Your task to perform on an android device: View the shopping cart on newegg.com. Image 0: 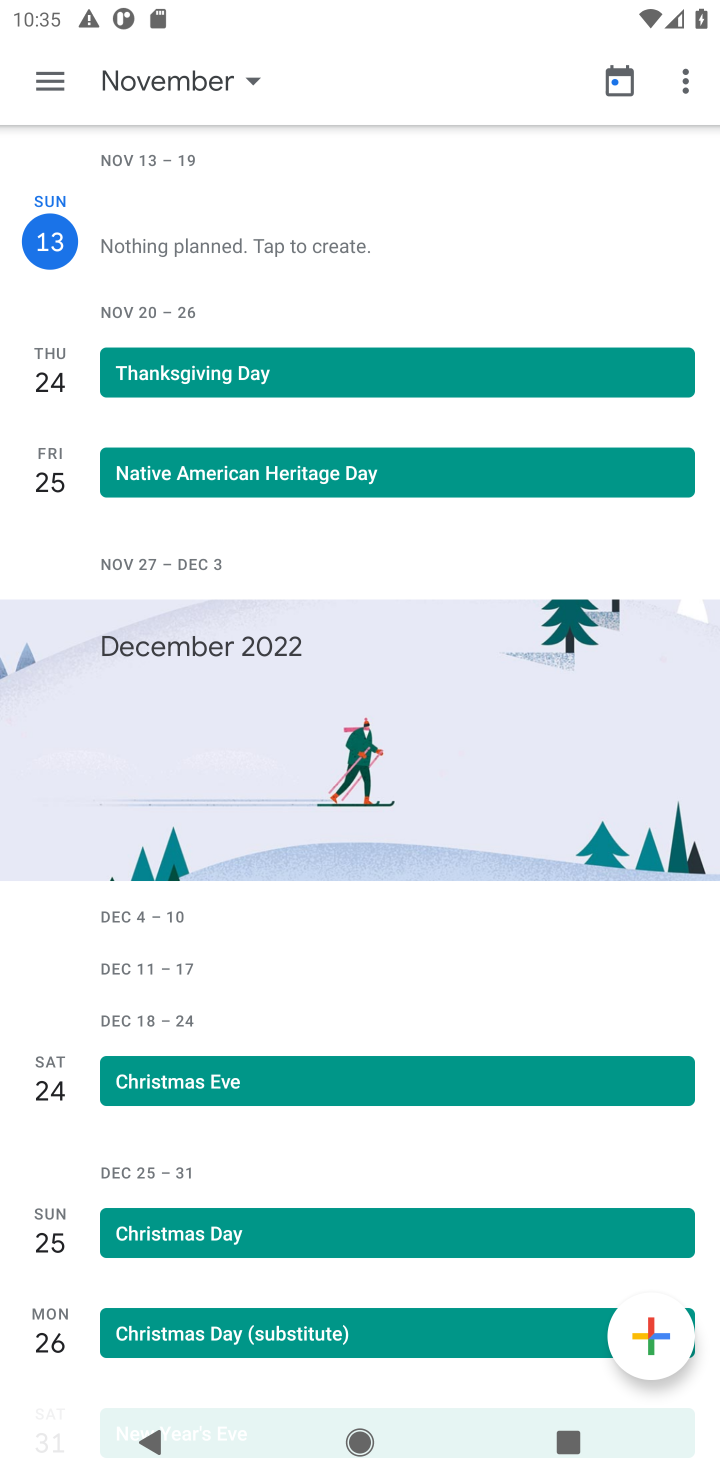
Step 0: press home button
Your task to perform on an android device: View the shopping cart on newegg.com. Image 1: 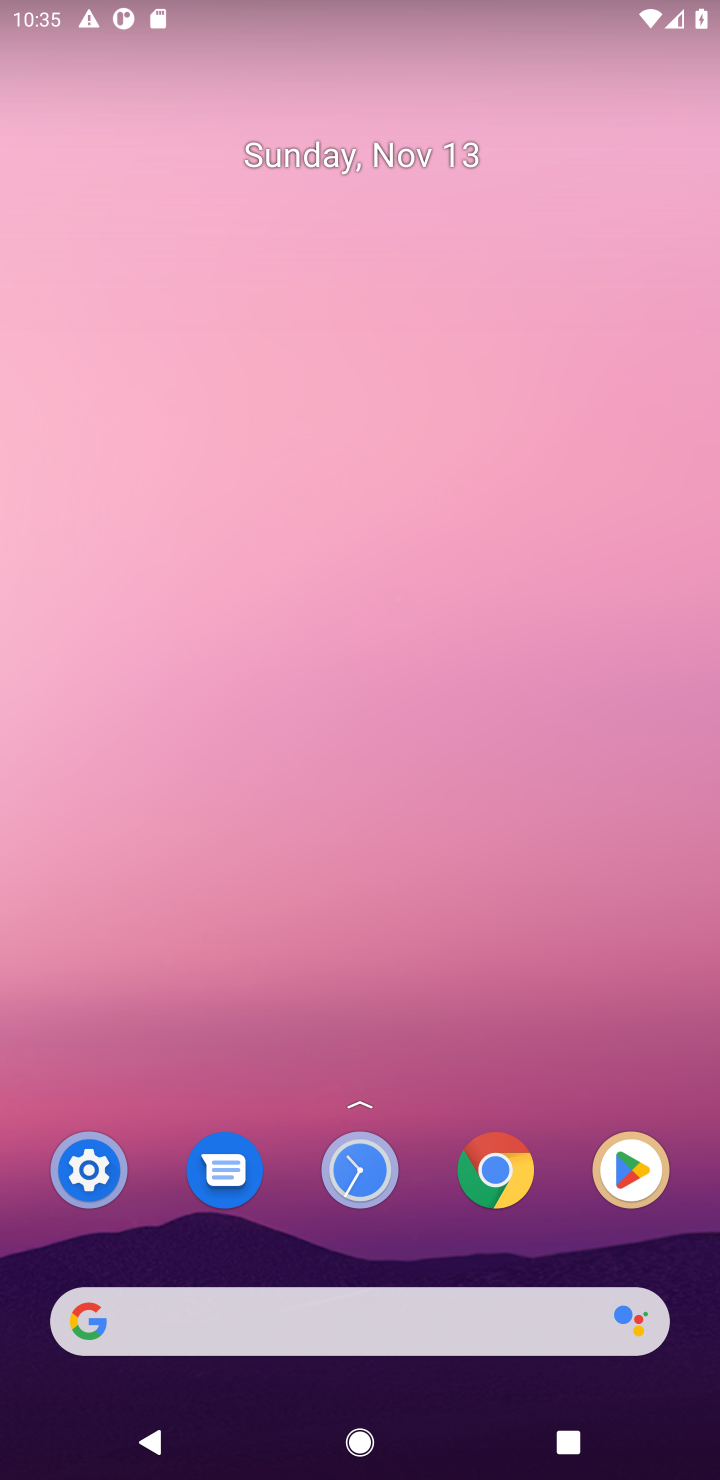
Step 1: click (463, 1313)
Your task to perform on an android device: View the shopping cart on newegg.com. Image 2: 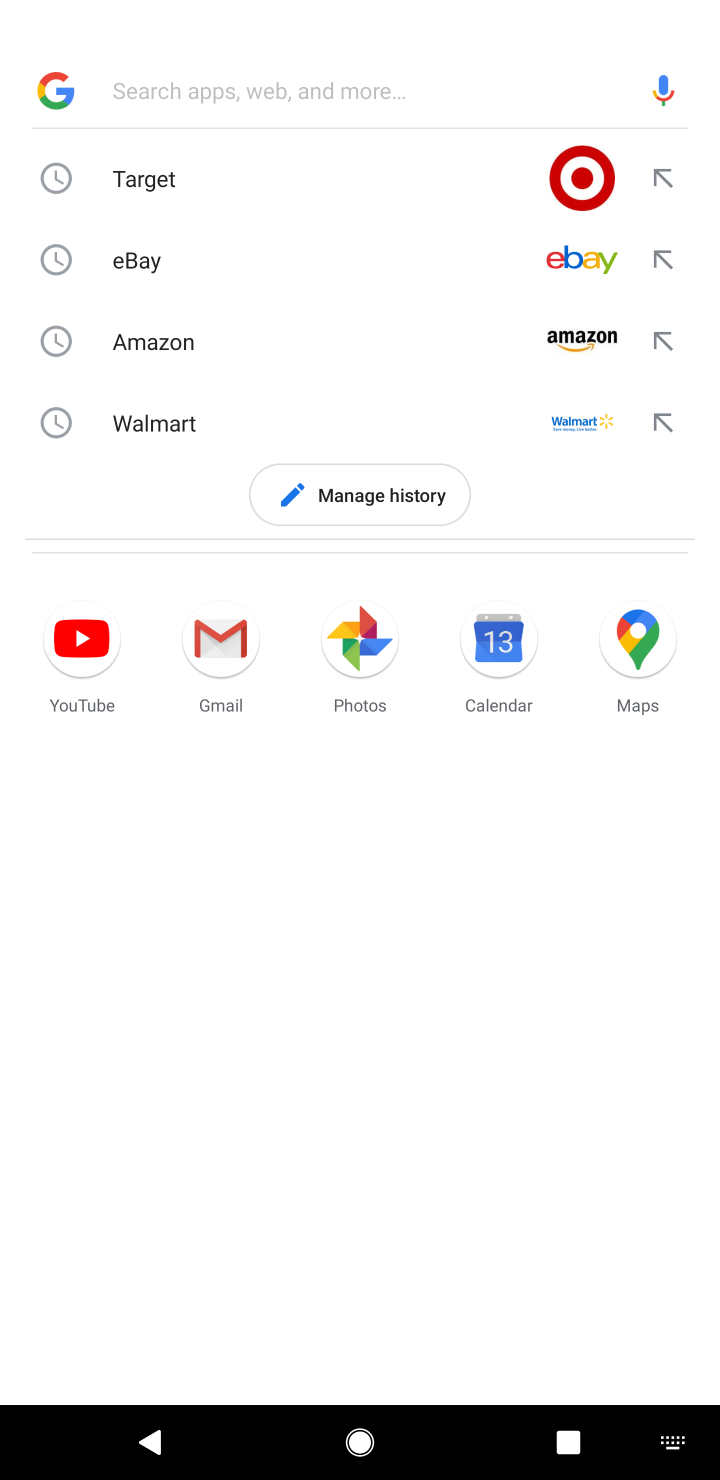
Step 2: type "newegg"
Your task to perform on an android device: View the shopping cart on newegg.com. Image 3: 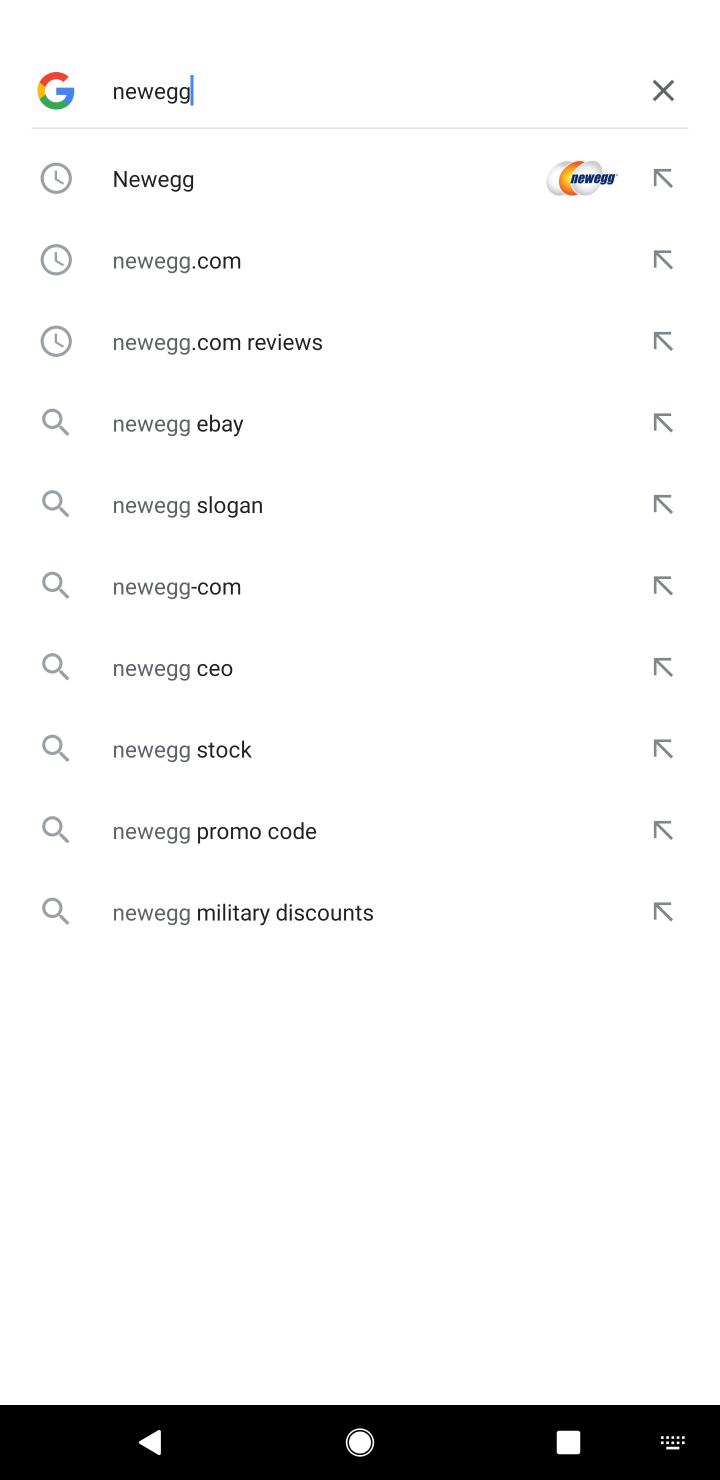
Step 3: click (134, 160)
Your task to perform on an android device: View the shopping cart on newegg.com. Image 4: 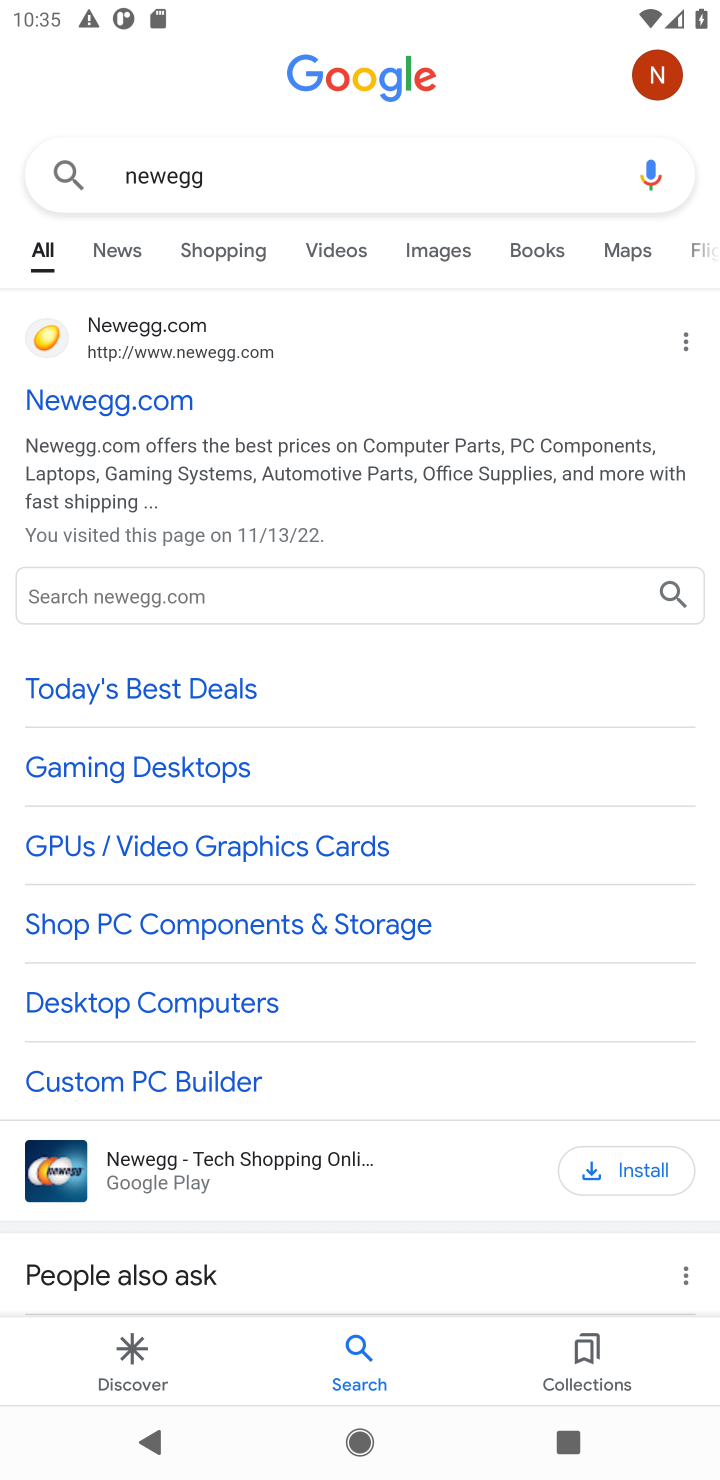
Step 4: click (113, 406)
Your task to perform on an android device: View the shopping cart on newegg.com. Image 5: 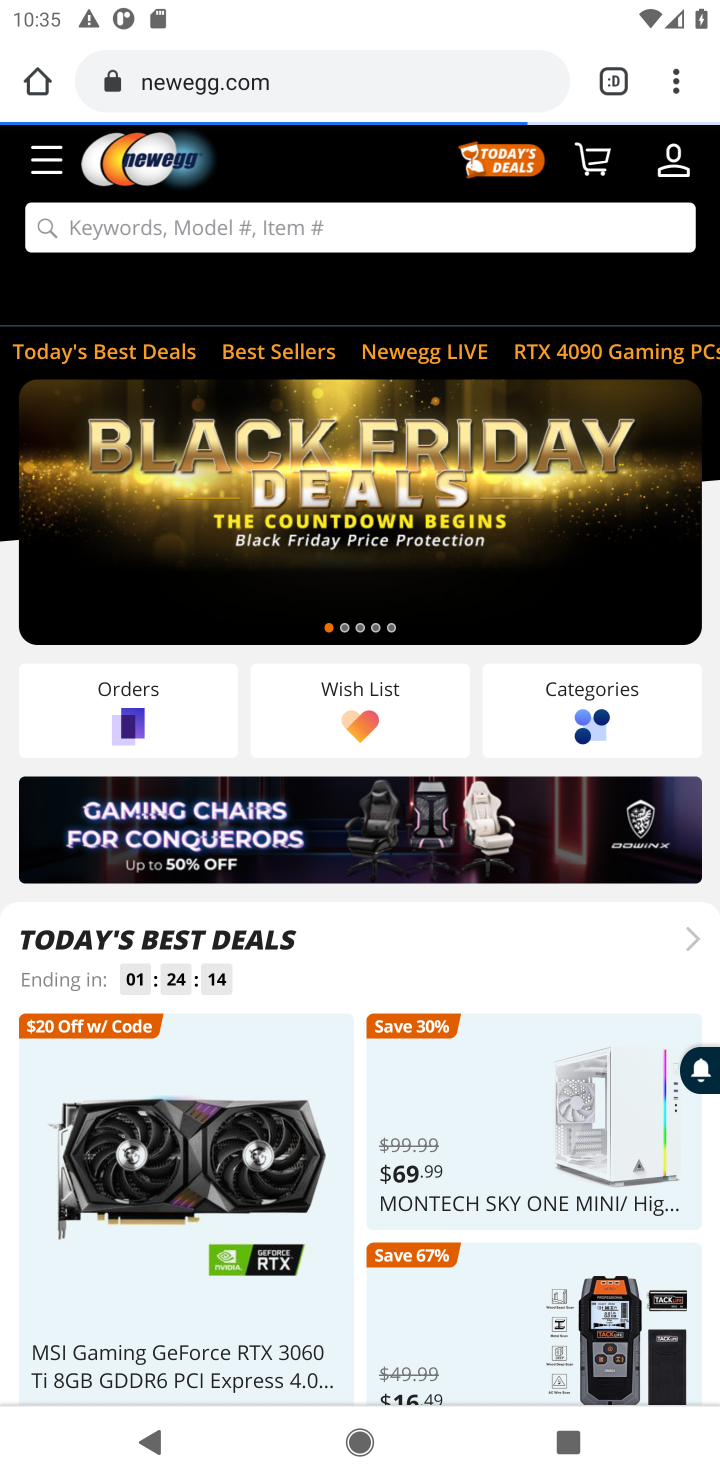
Step 5: task complete